Your task to perform on an android device: Open the calendar and show me this week's events? Image 0: 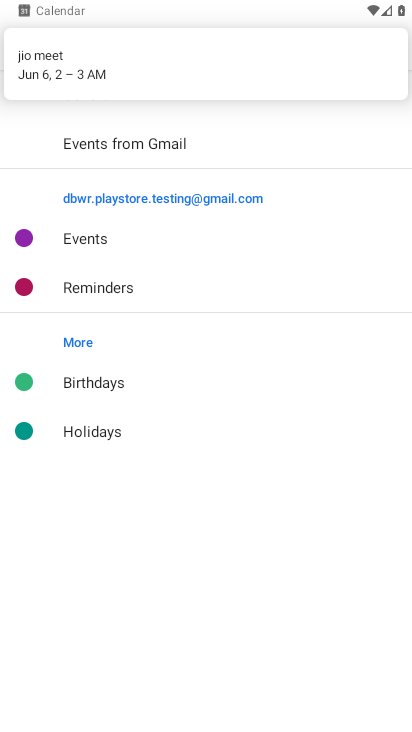
Step 0: press back button
Your task to perform on an android device: Open the calendar and show me this week's events? Image 1: 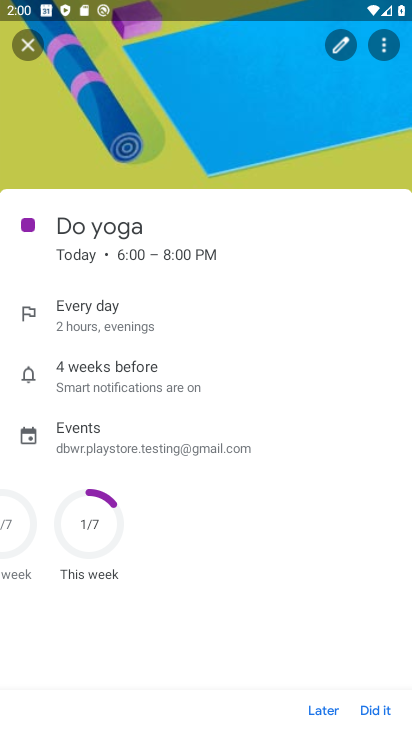
Step 1: press back button
Your task to perform on an android device: Open the calendar and show me this week's events? Image 2: 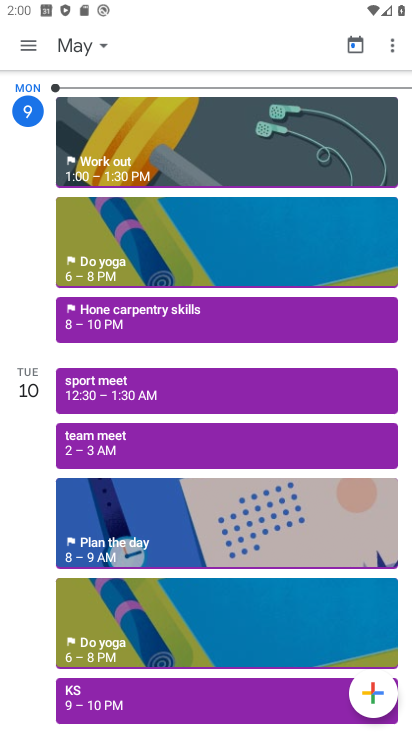
Step 2: press back button
Your task to perform on an android device: Open the calendar and show me this week's events? Image 3: 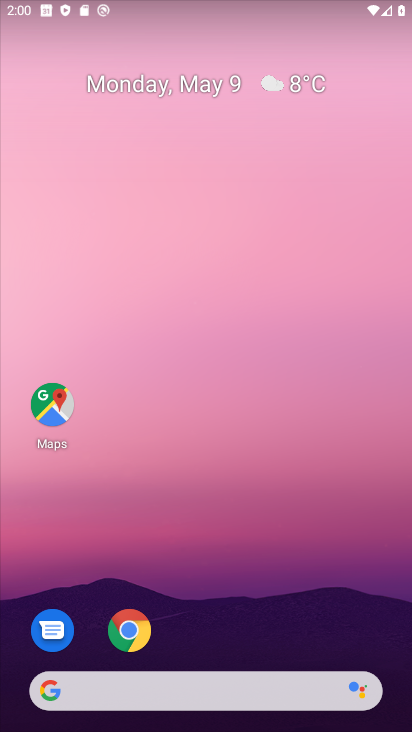
Step 3: drag from (169, 559) to (276, 45)
Your task to perform on an android device: Open the calendar and show me this week's events? Image 4: 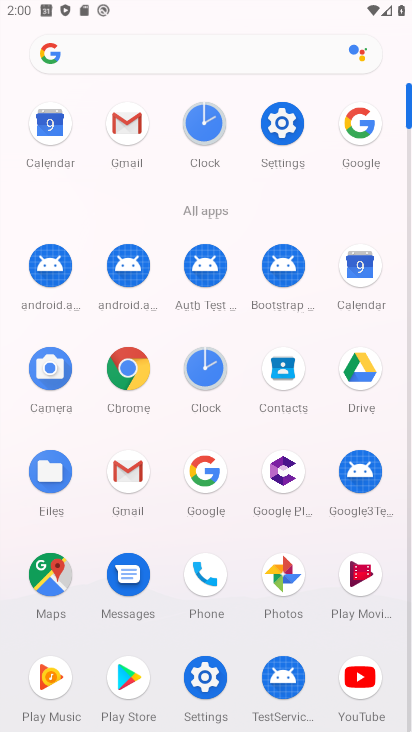
Step 4: click (44, 129)
Your task to perform on an android device: Open the calendar and show me this week's events? Image 5: 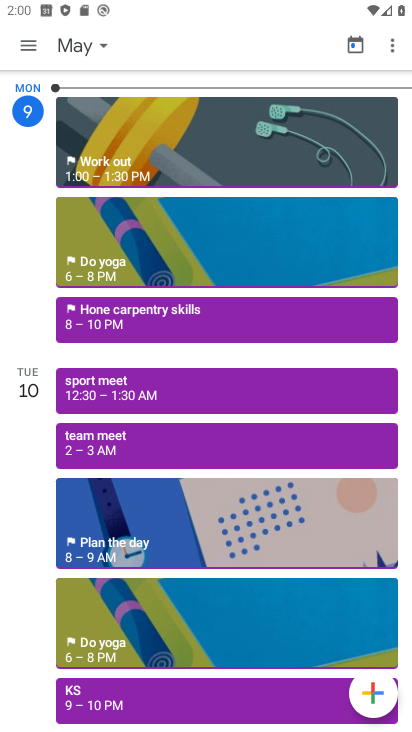
Step 5: drag from (161, 635) to (279, 60)
Your task to perform on an android device: Open the calendar and show me this week's events? Image 6: 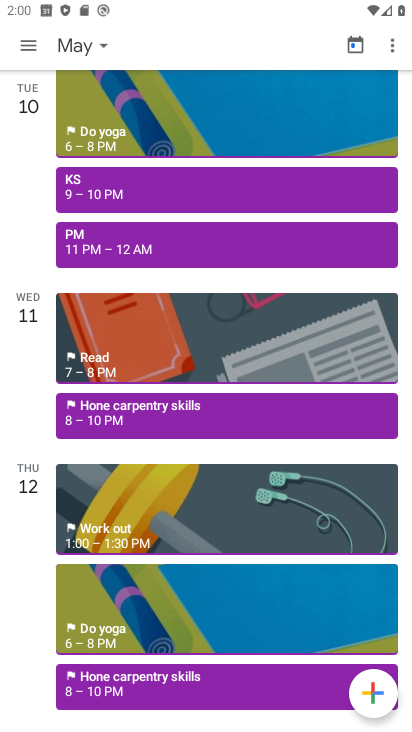
Step 6: click (119, 506)
Your task to perform on an android device: Open the calendar and show me this week's events? Image 7: 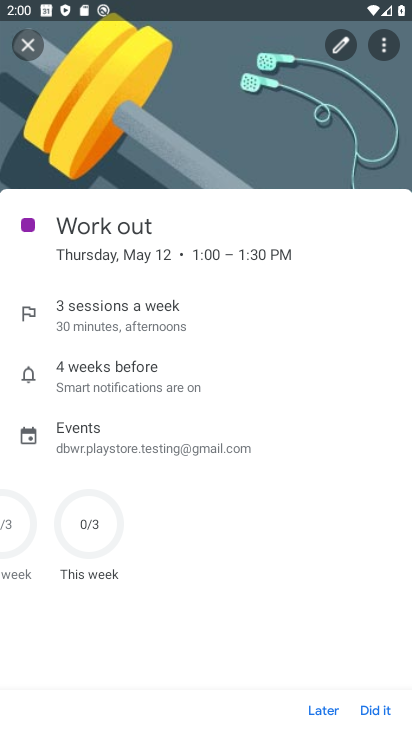
Step 7: task complete